Your task to perform on an android device: Add "dell xps" to the cart on bestbuy.com Image 0: 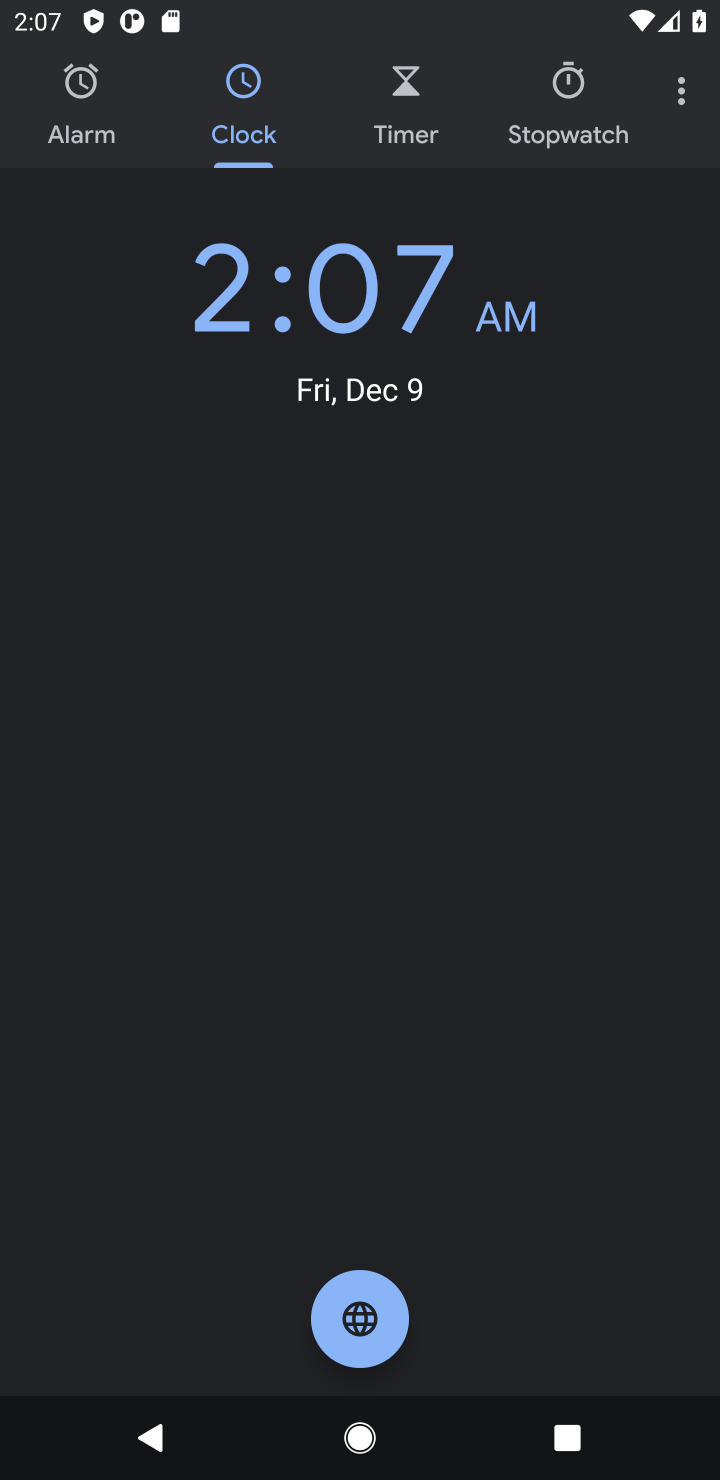
Step 0: press home button
Your task to perform on an android device: Add "dell xps" to the cart on bestbuy.com Image 1: 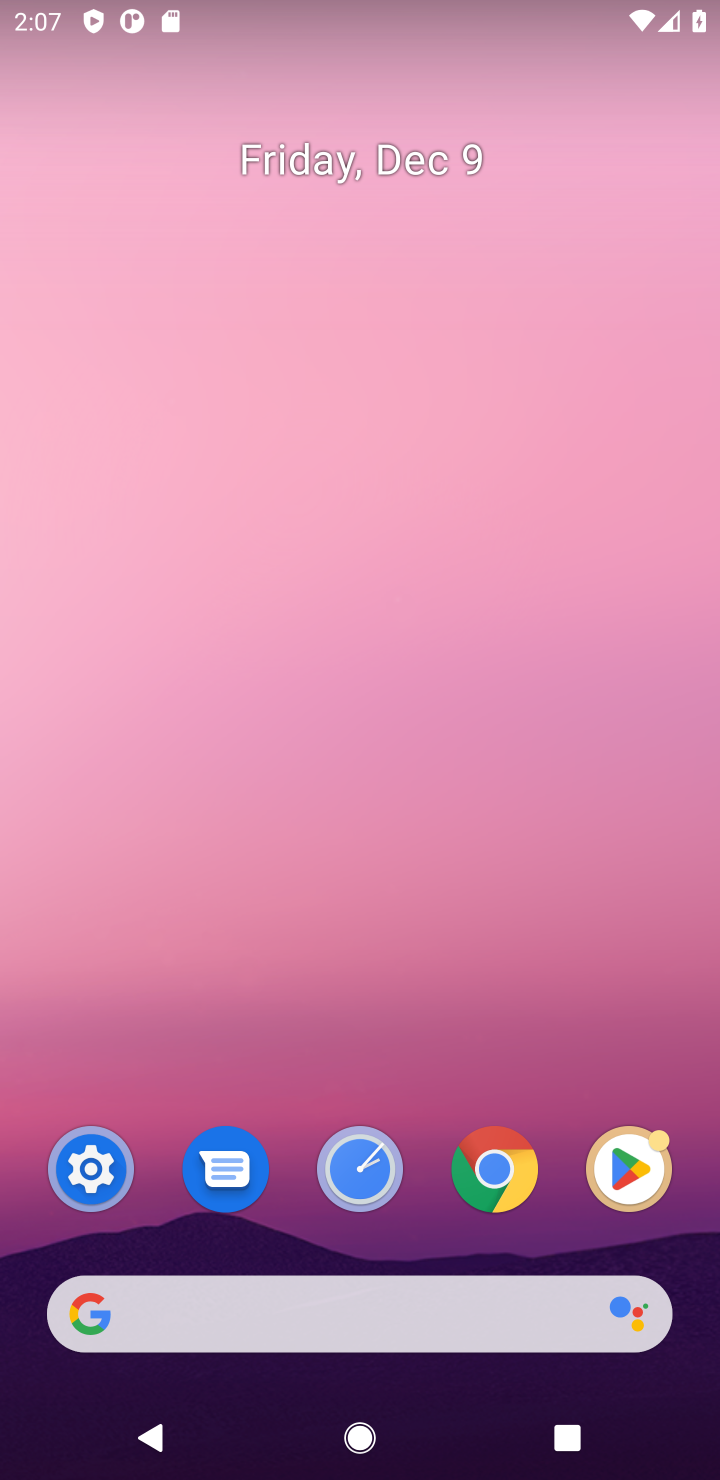
Step 1: click (506, 1158)
Your task to perform on an android device: Add "dell xps" to the cart on bestbuy.com Image 2: 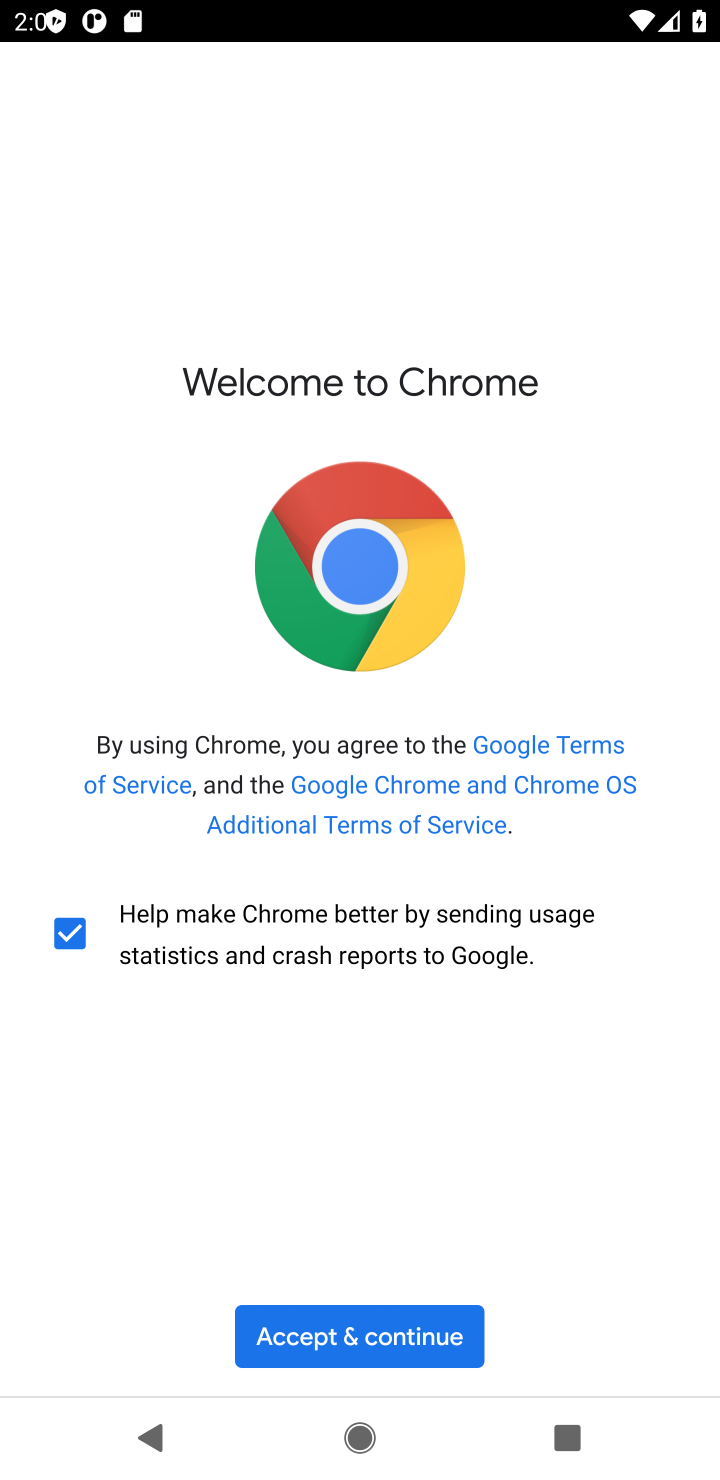
Step 2: click (411, 1346)
Your task to perform on an android device: Add "dell xps" to the cart on bestbuy.com Image 3: 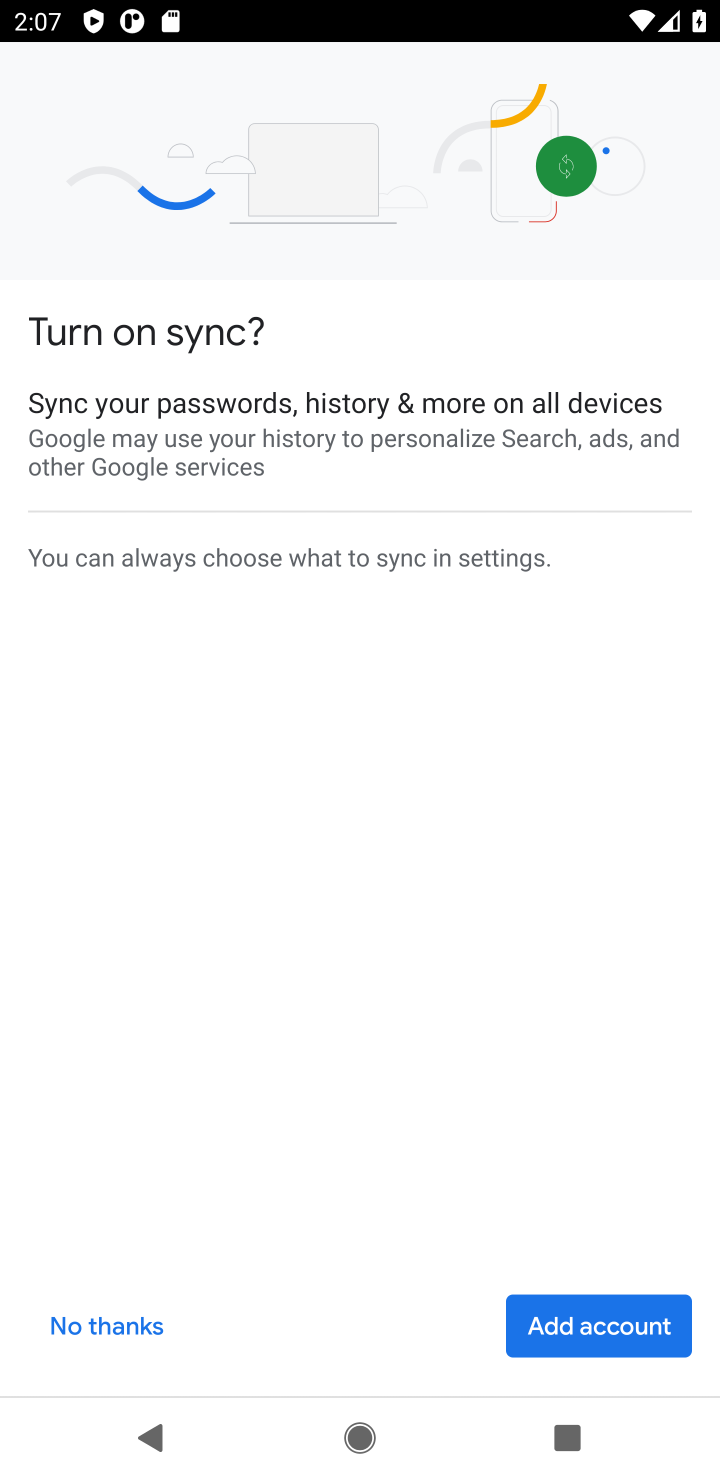
Step 3: click (118, 1316)
Your task to perform on an android device: Add "dell xps" to the cart on bestbuy.com Image 4: 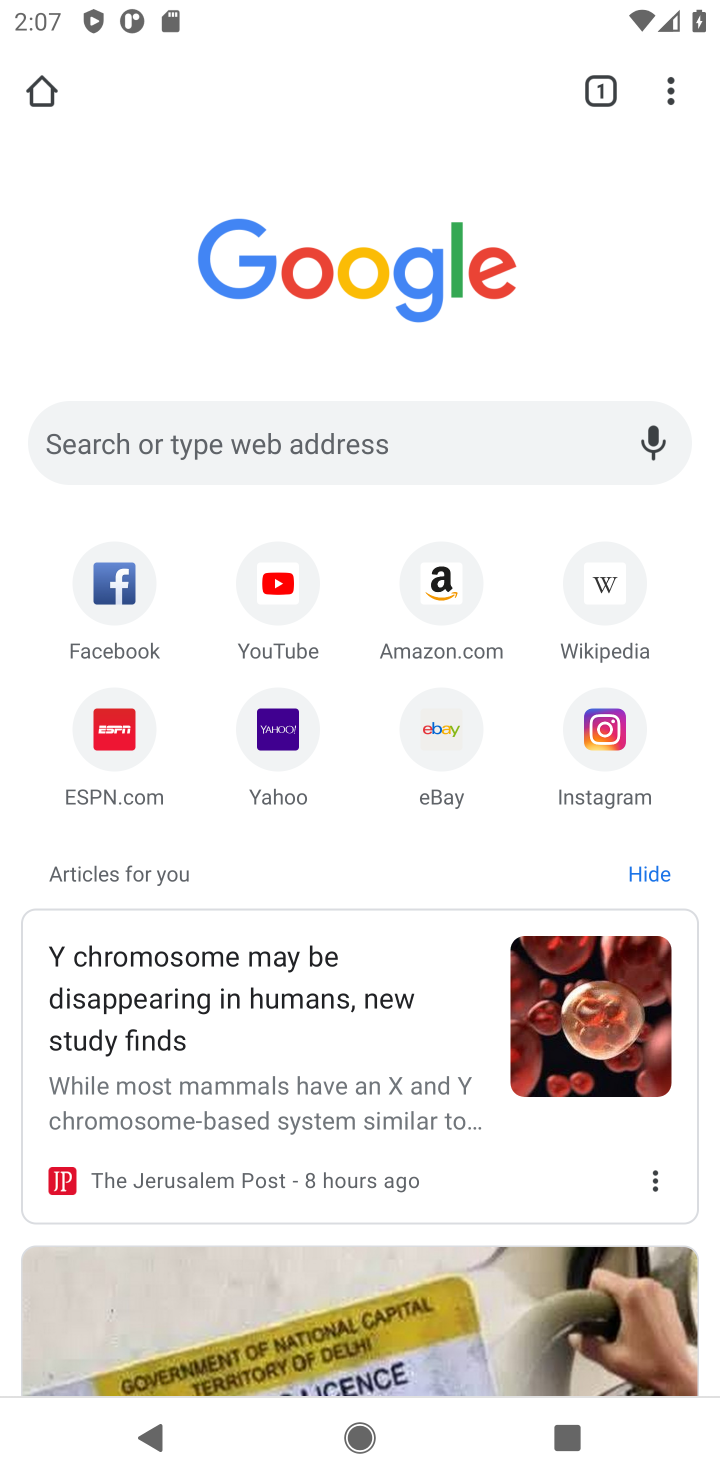
Step 4: click (519, 418)
Your task to perform on an android device: Add "dell xps" to the cart on bestbuy.com Image 5: 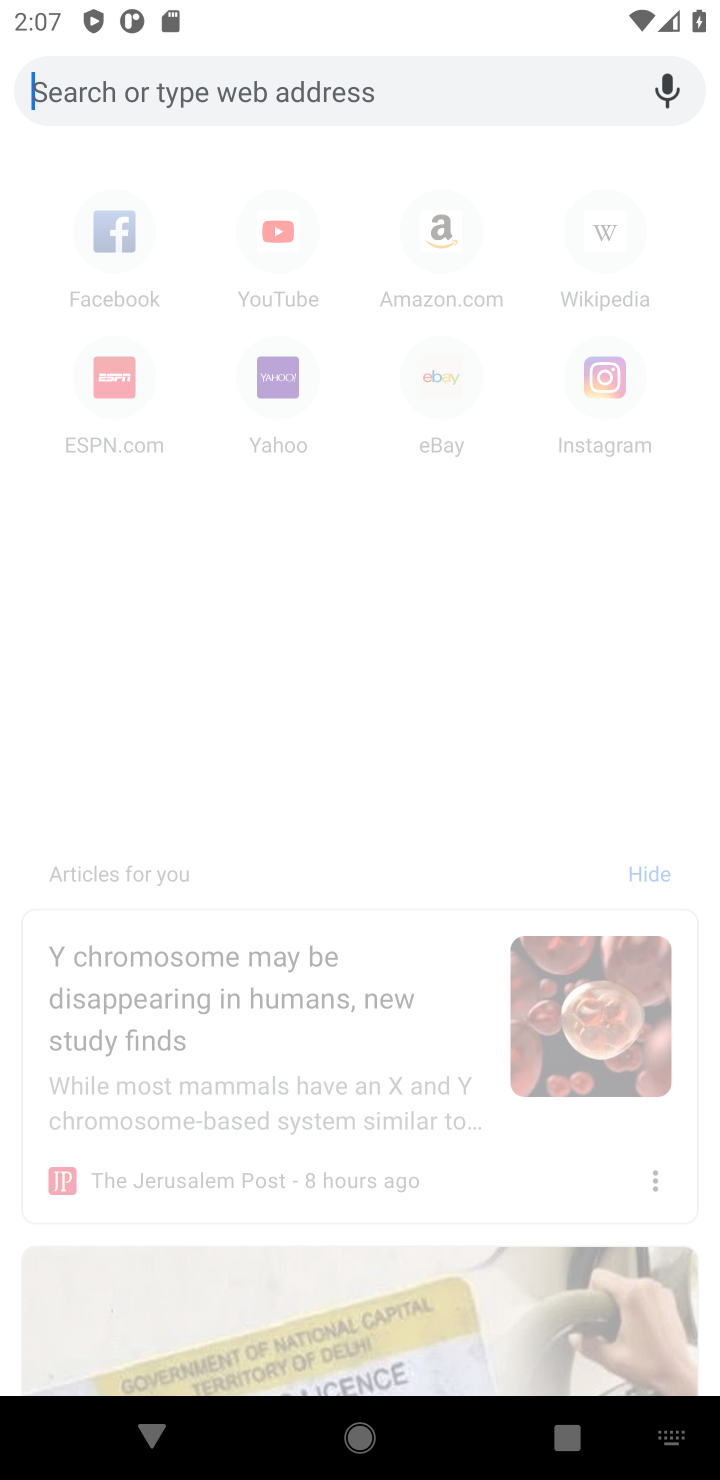
Step 5: press enter
Your task to perform on an android device: Add "dell xps" to the cart on bestbuy.com Image 6: 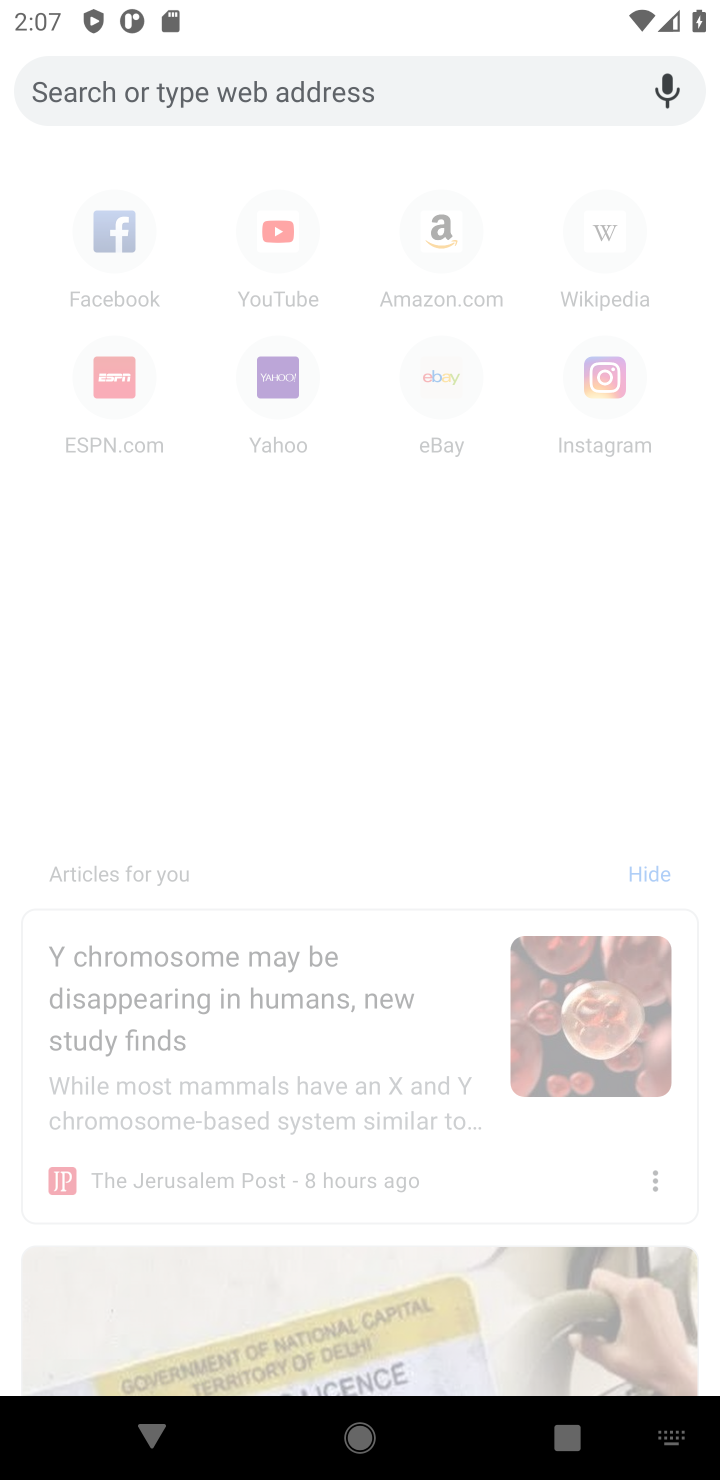
Step 6: type "bestbuy.com"
Your task to perform on an android device: Add "dell xps" to the cart on bestbuy.com Image 7: 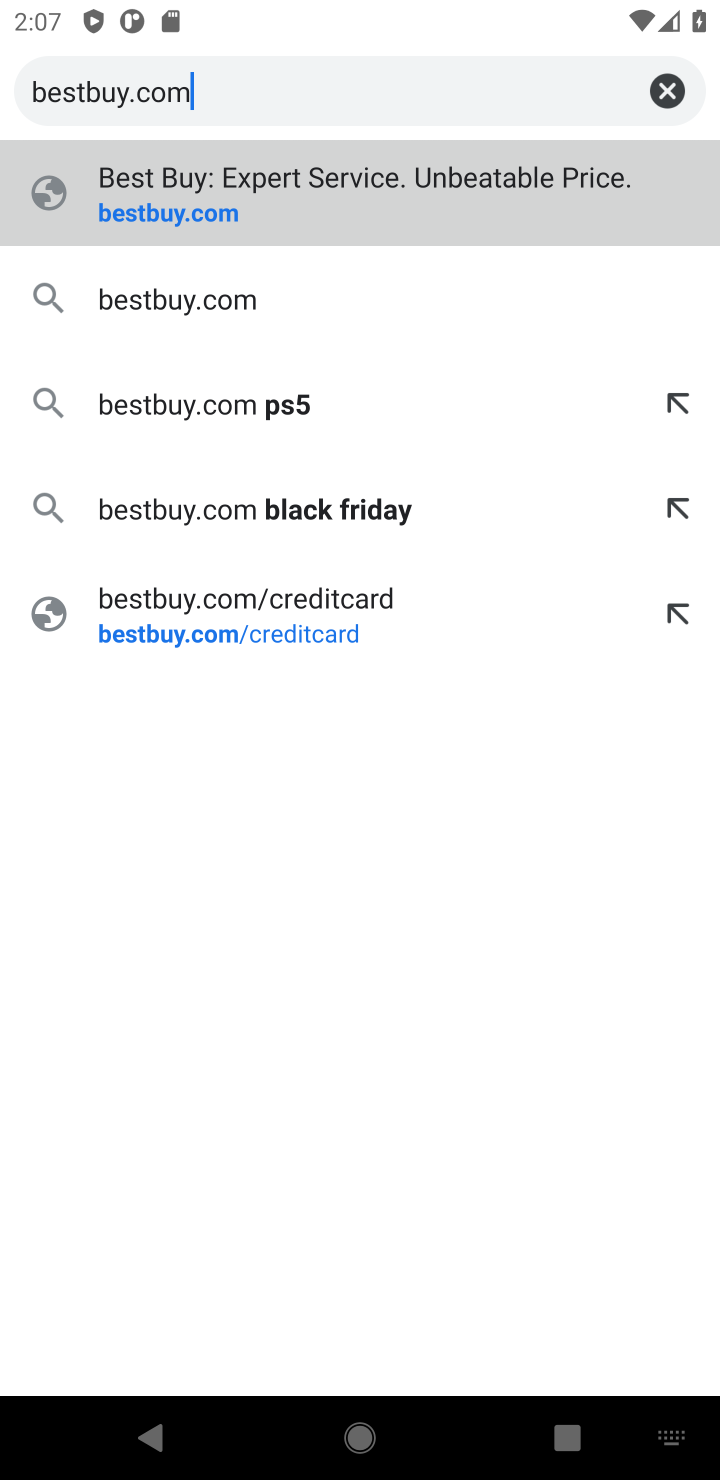
Step 7: click (212, 302)
Your task to perform on an android device: Add "dell xps" to the cart on bestbuy.com Image 8: 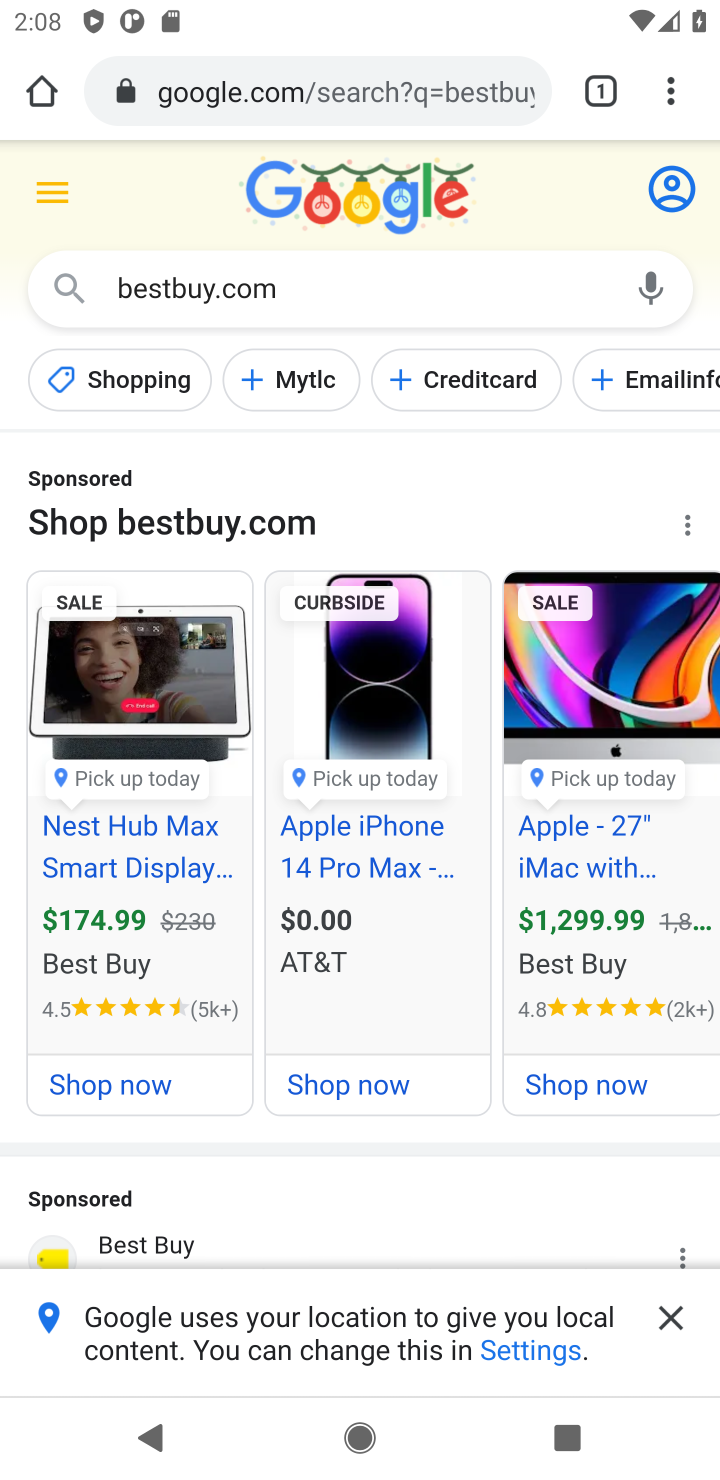
Step 8: drag from (361, 1131) to (399, 617)
Your task to perform on an android device: Add "dell xps" to the cart on bestbuy.com Image 9: 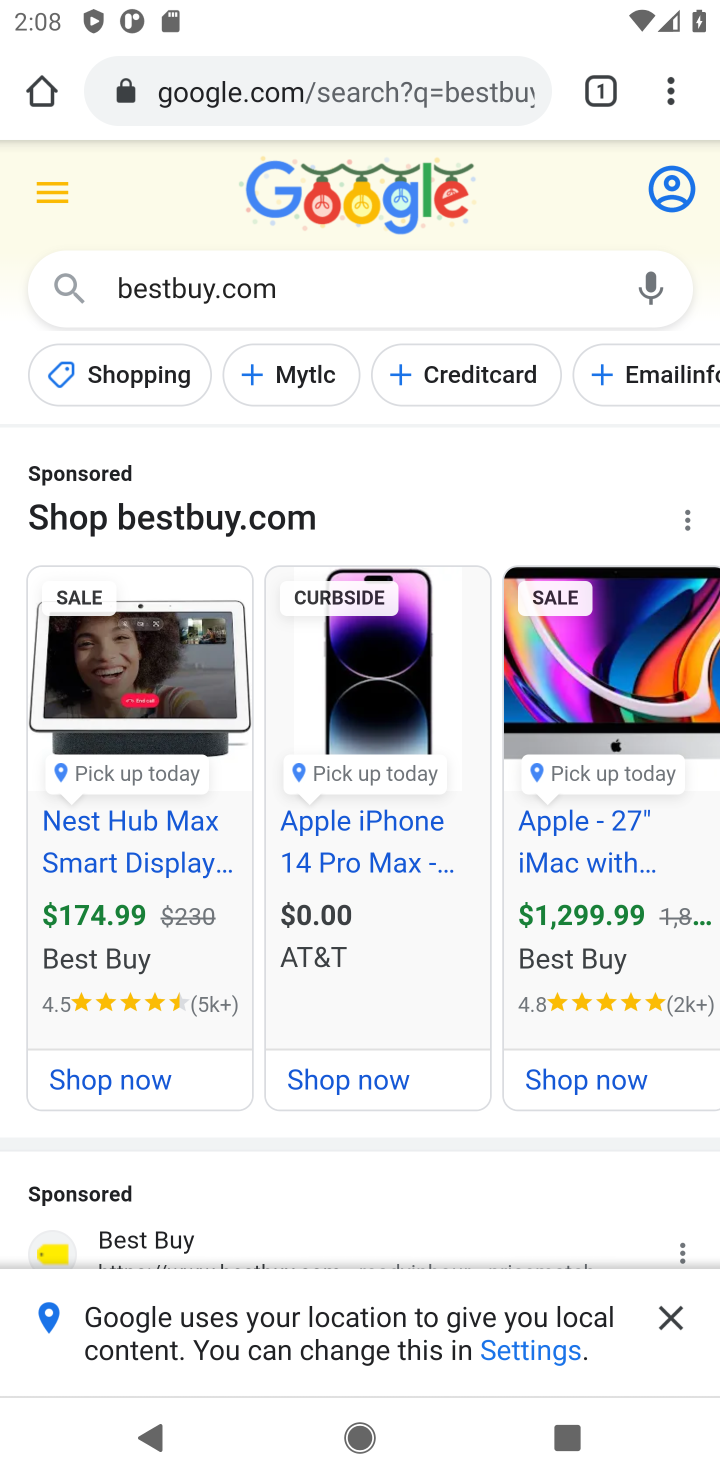
Step 9: click (679, 1319)
Your task to perform on an android device: Add "dell xps" to the cart on bestbuy.com Image 10: 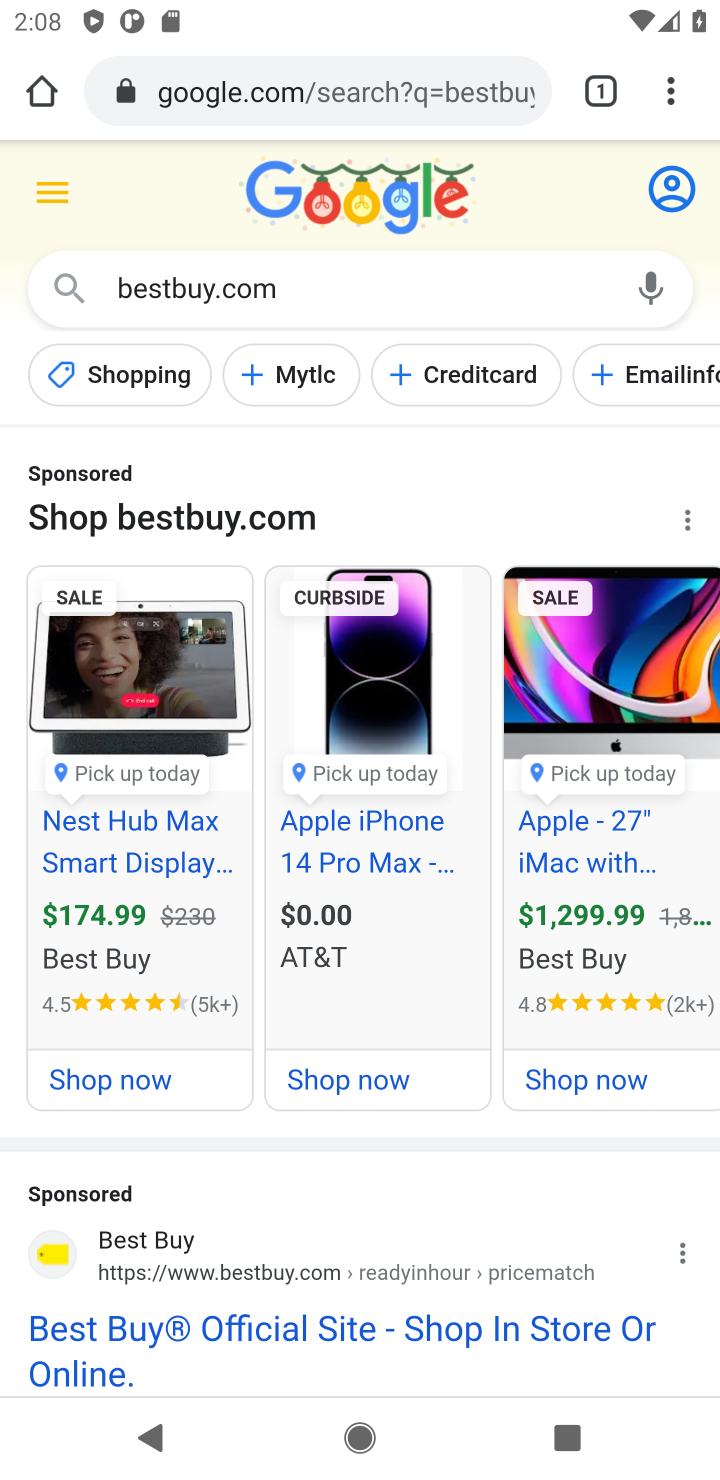
Step 10: click (196, 1267)
Your task to perform on an android device: Add "dell xps" to the cart on bestbuy.com Image 11: 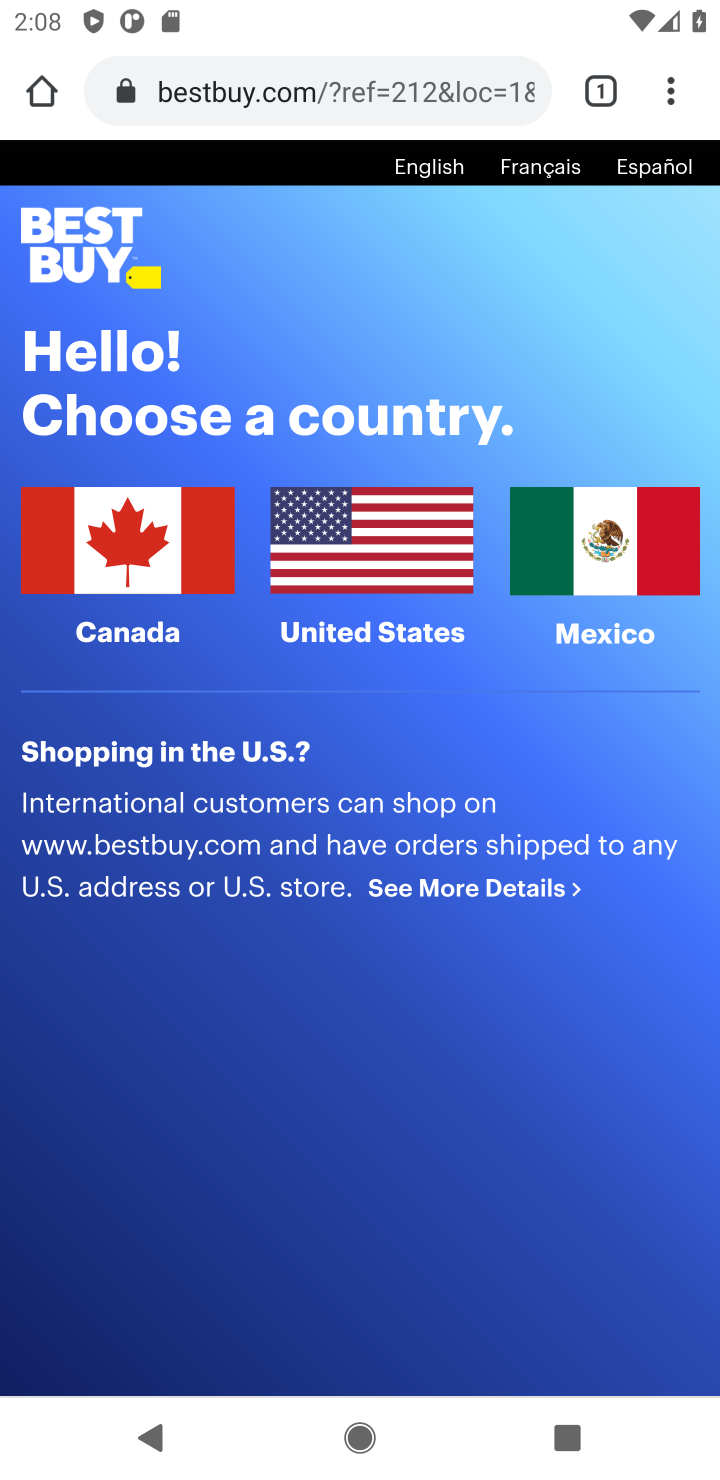
Step 11: click (433, 539)
Your task to perform on an android device: Add "dell xps" to the cart on bestbuy.com Image 12: 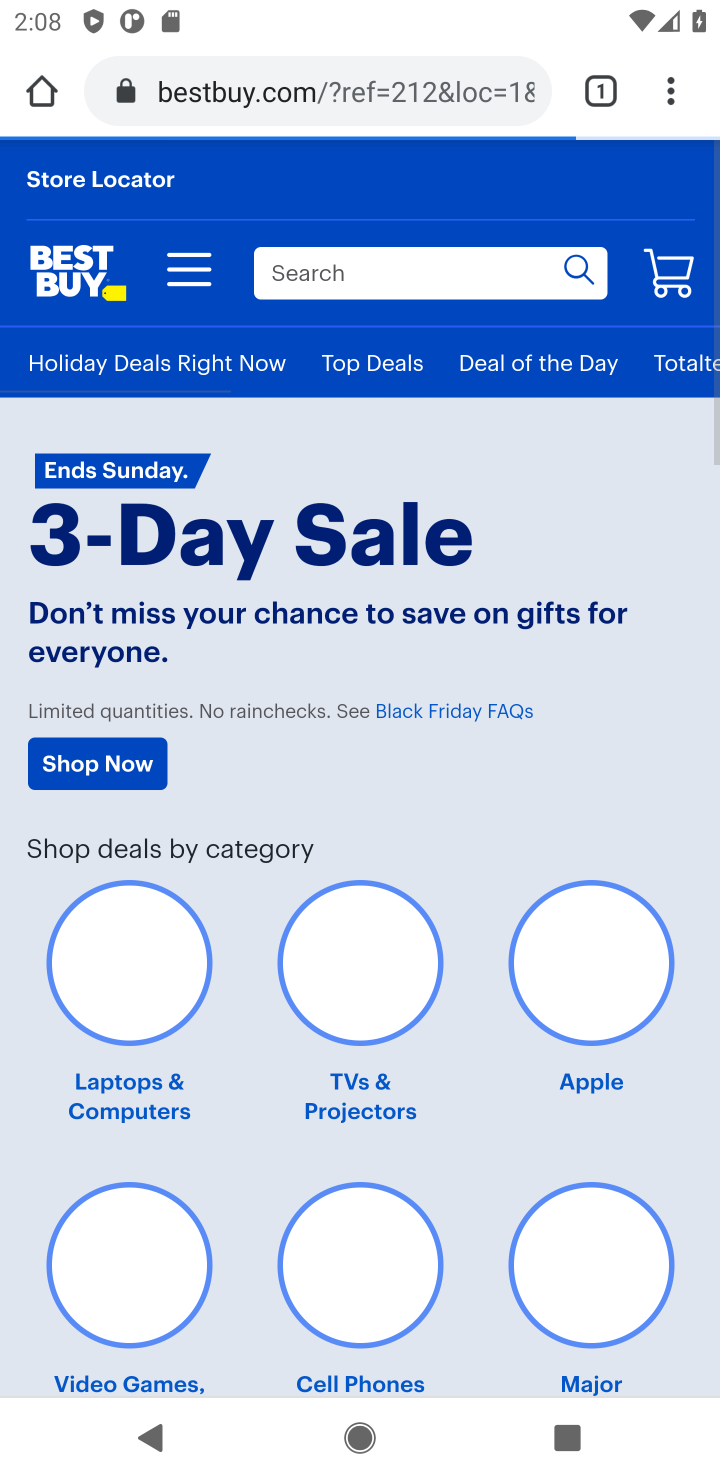
Step 12: click (433, 539)
Your task to perform on an android device: Add "dell xps" to the cart on bestbuy.com Image 13: 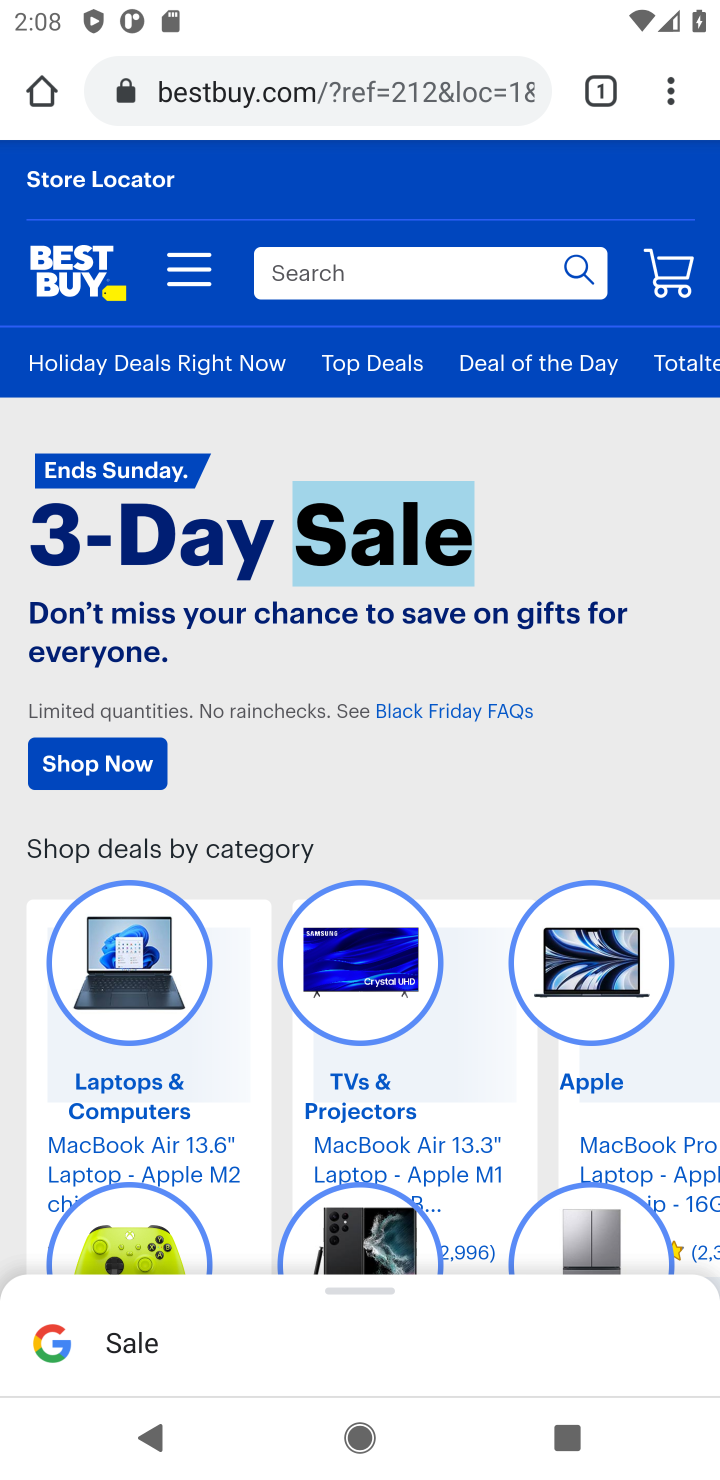
Step 13: click (511, 261)
Your task to perform on an android device: Add "dell xps" to the cart on bestbuy.com Image 14: 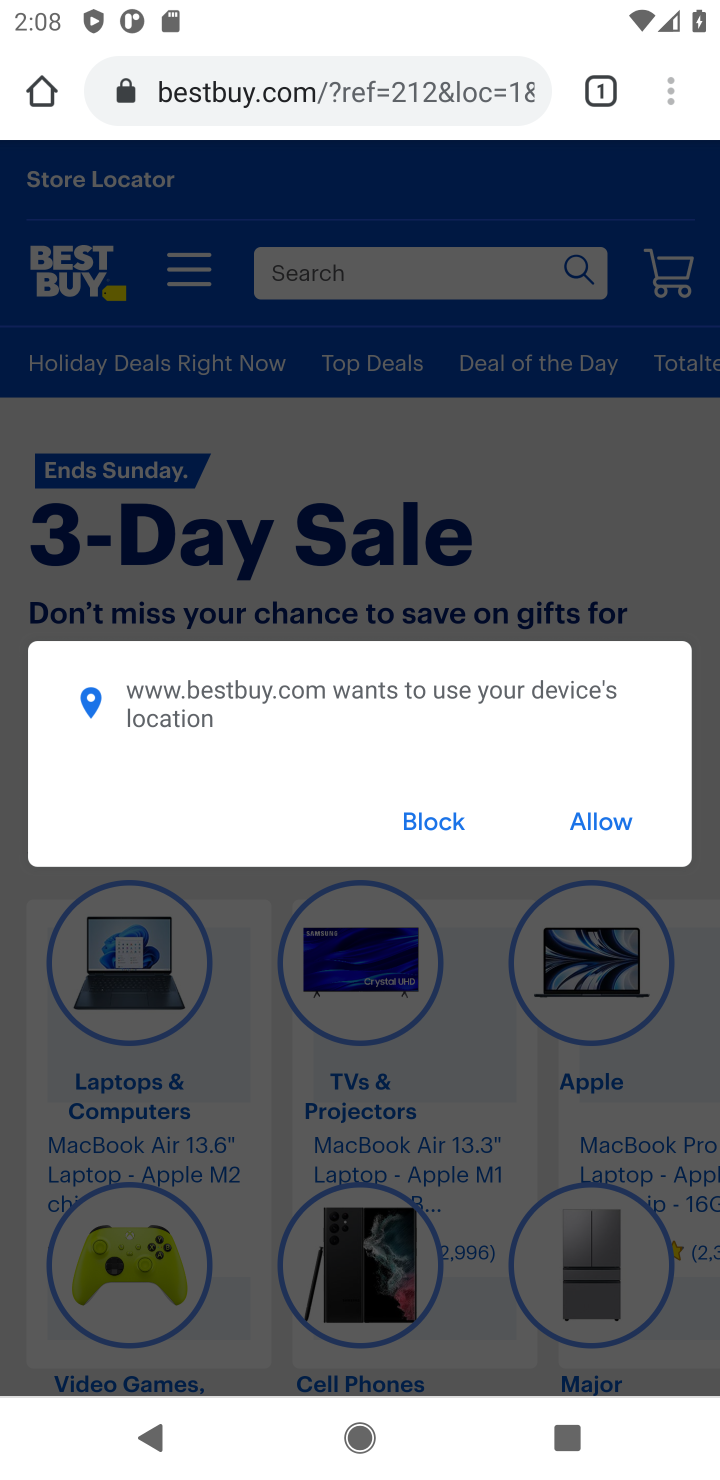
Step 14: click (434, 815)
Your task to perform on an android device: Add "dell xps" to the cart on bestbuy.com Image 15: 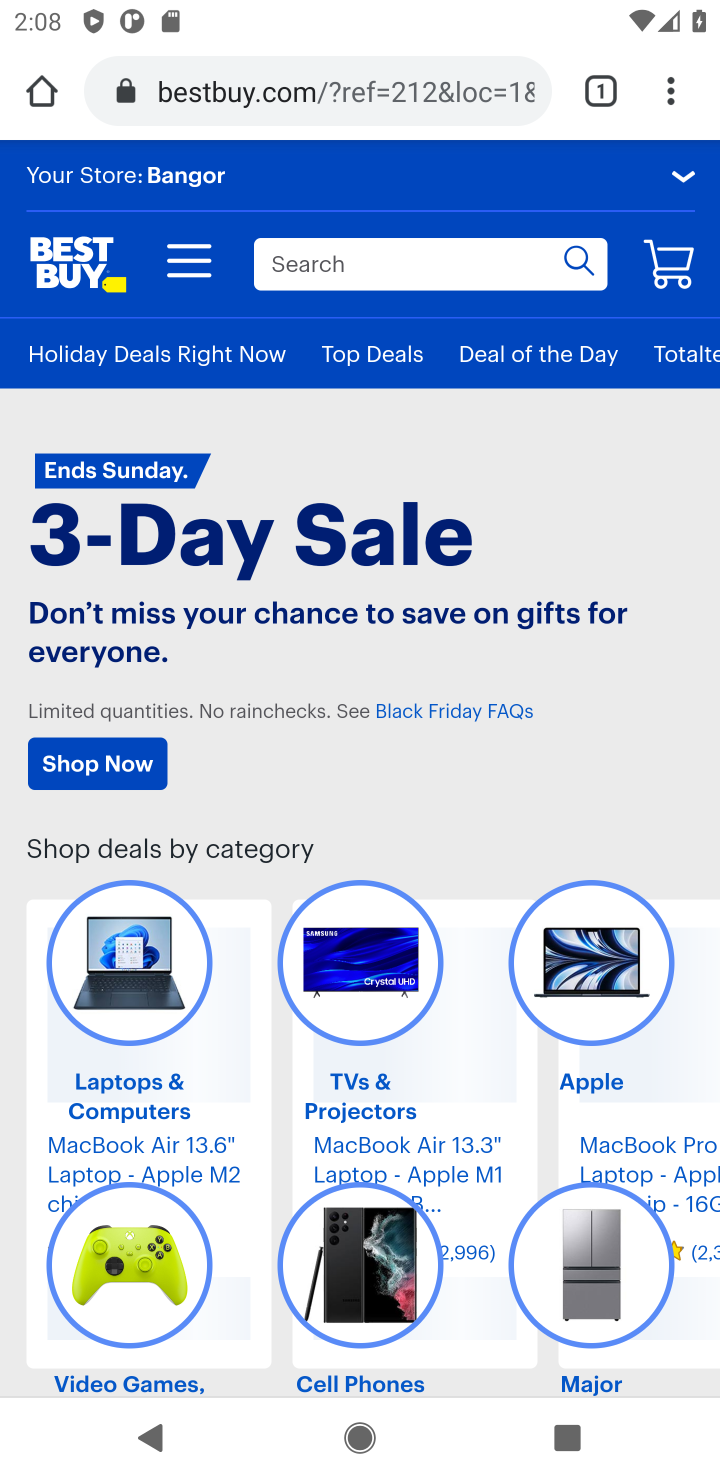
Step 15: click (526, 258)
Your task to perform on an android device: Add "dell xps" to the cart on bestbuy.com Image 16: 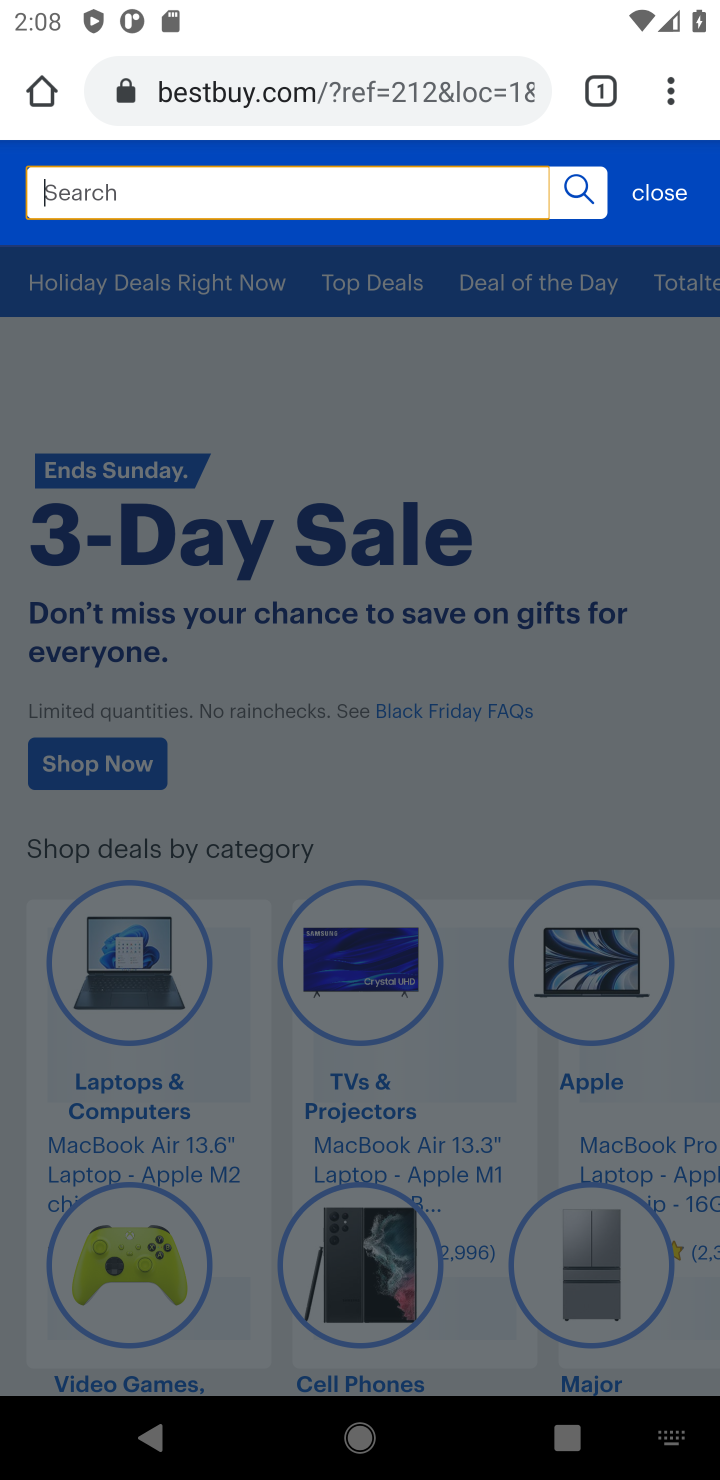
Step 16: type "dell xps"
Your task to perform on an android device: Add "dell xps" to the cart on bestbuy.com Image 17: 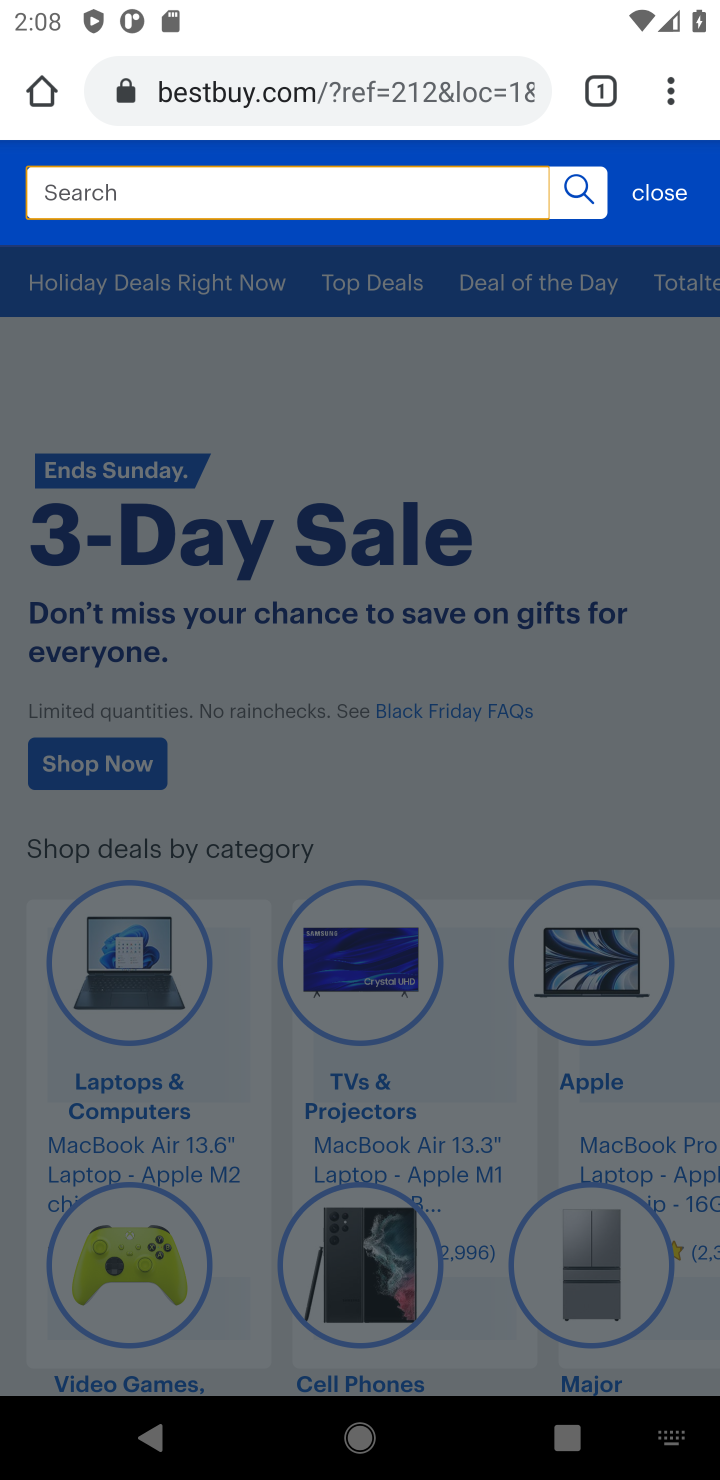
Step 17: click (438, 190)
Your task to perform on an android device: Add "dell xps" to the cart on bestbuy.com Image 18: 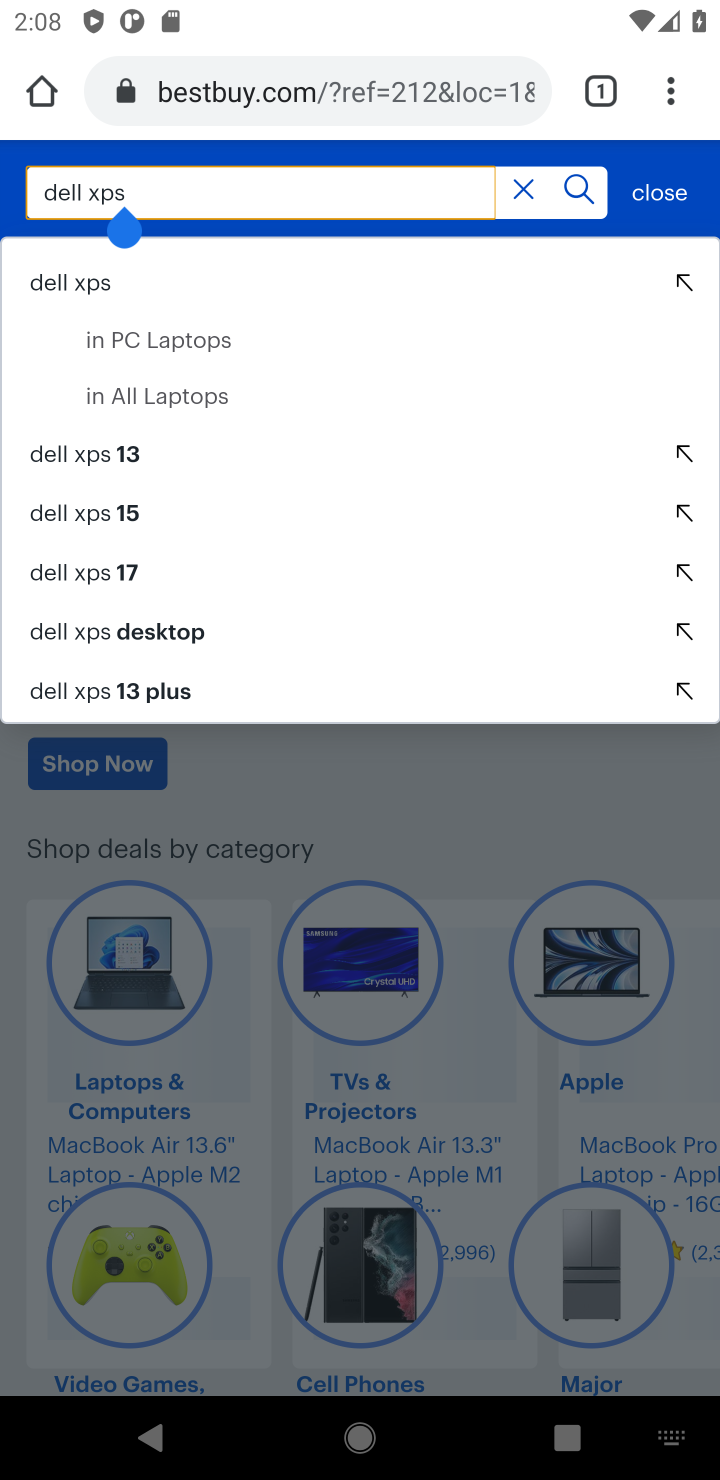
Step 18: click (77, 277)
Your task to perform on an android device: Add "dell xps" to the cart on bestbuy.com Image 19: 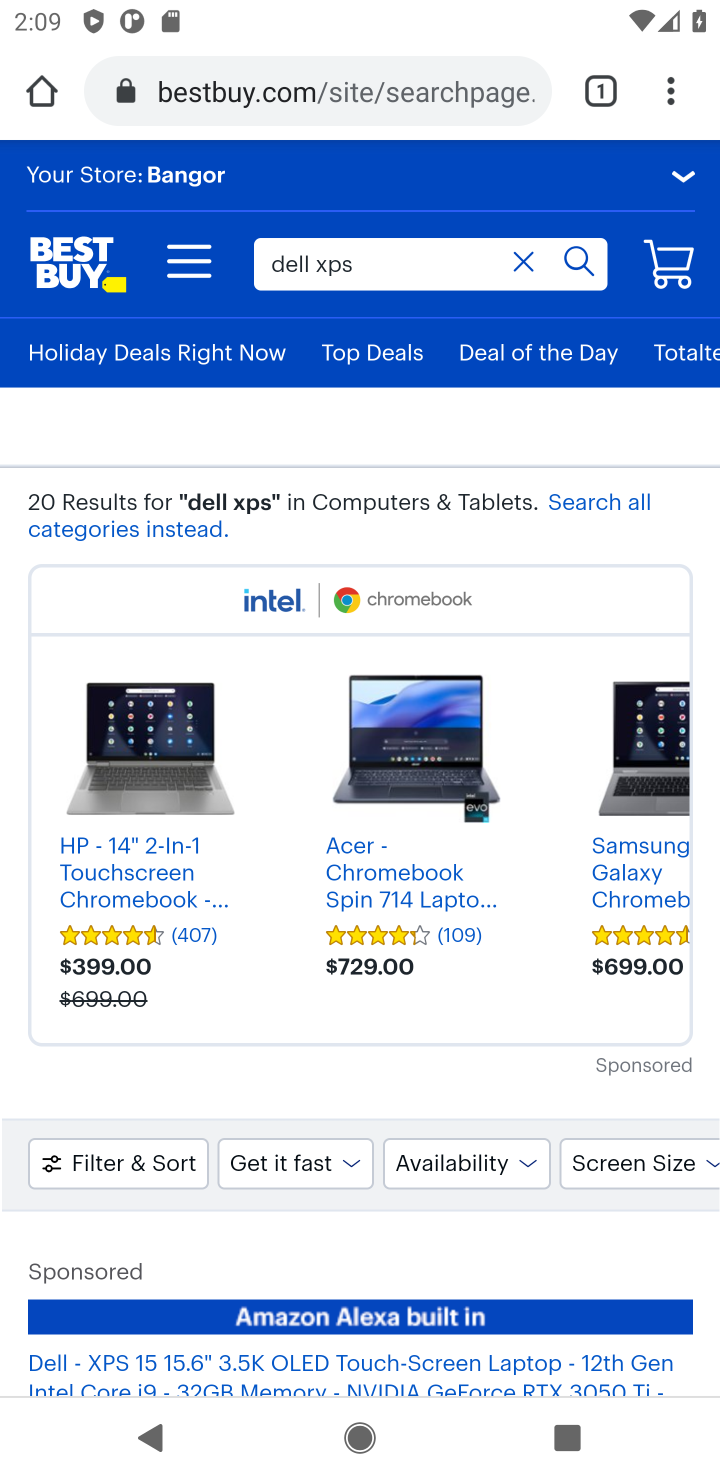
Step 19: drag from (510, 1078) to (532, 216)
Your task to perform on an android device: Add "dell xps" to the cart on bestbuy.com Image 20: 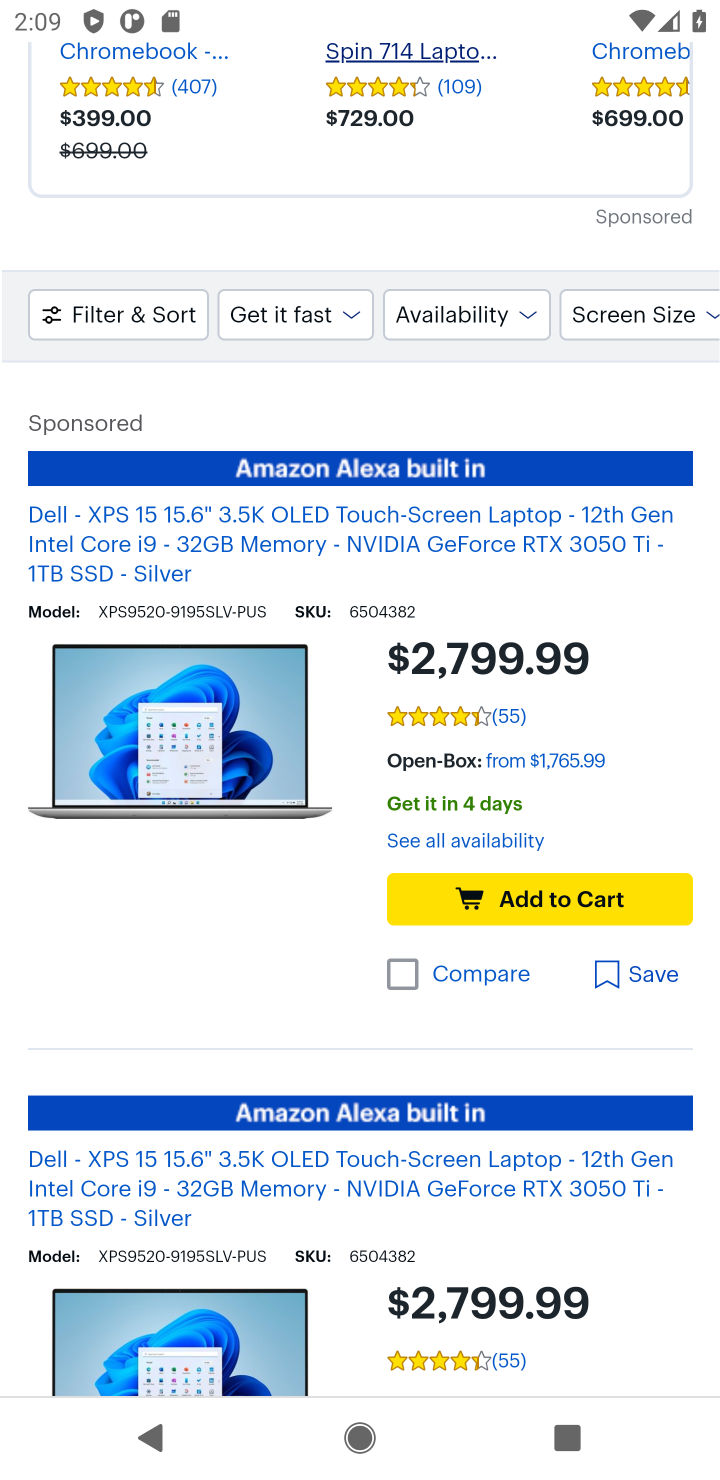
Step 20: drag from (486, 1212) to (535, 638)
Your task to perform on an android device: Add "dell xps" to the cart on bestbuy.com Image 21: 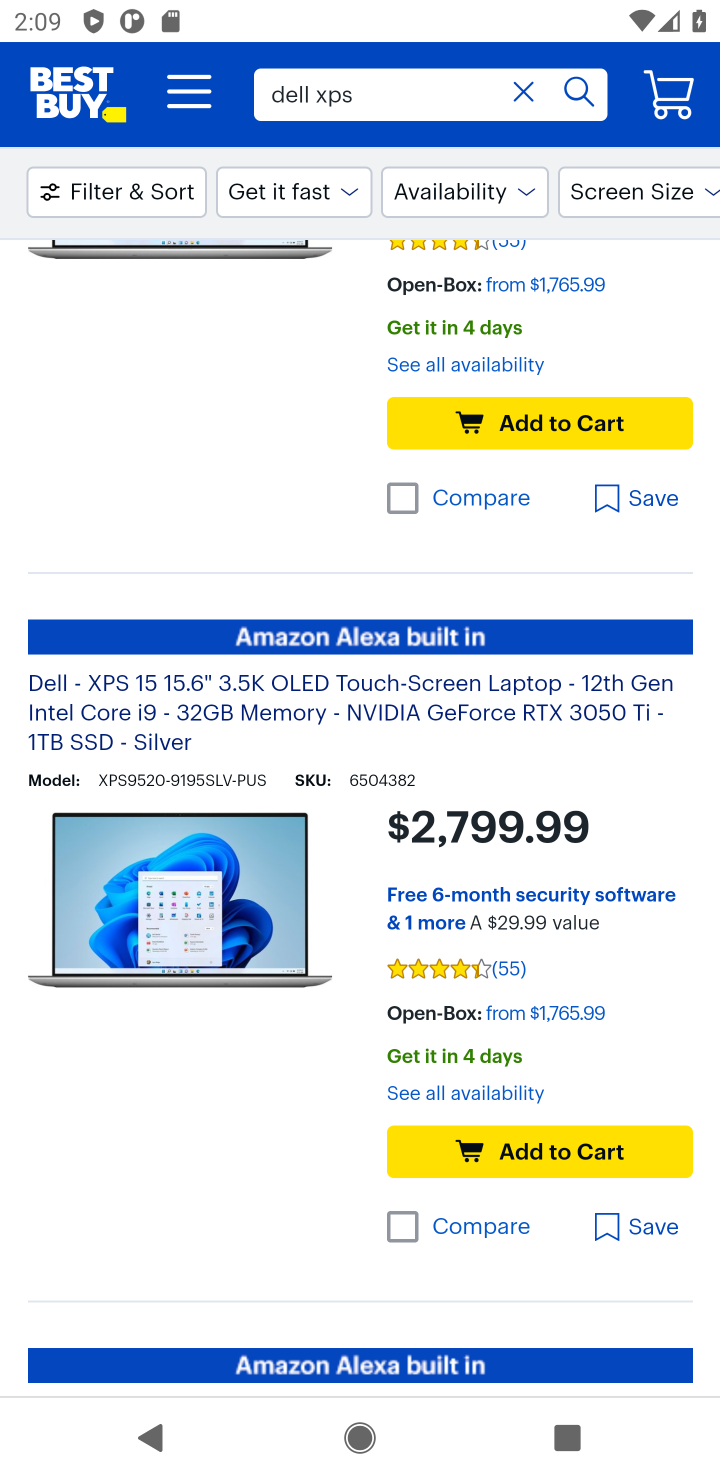
Step 21: click (195, 165)
Your task to perform on an android device: Add "dell xps" to the cart on bestbuy.com Image 22: 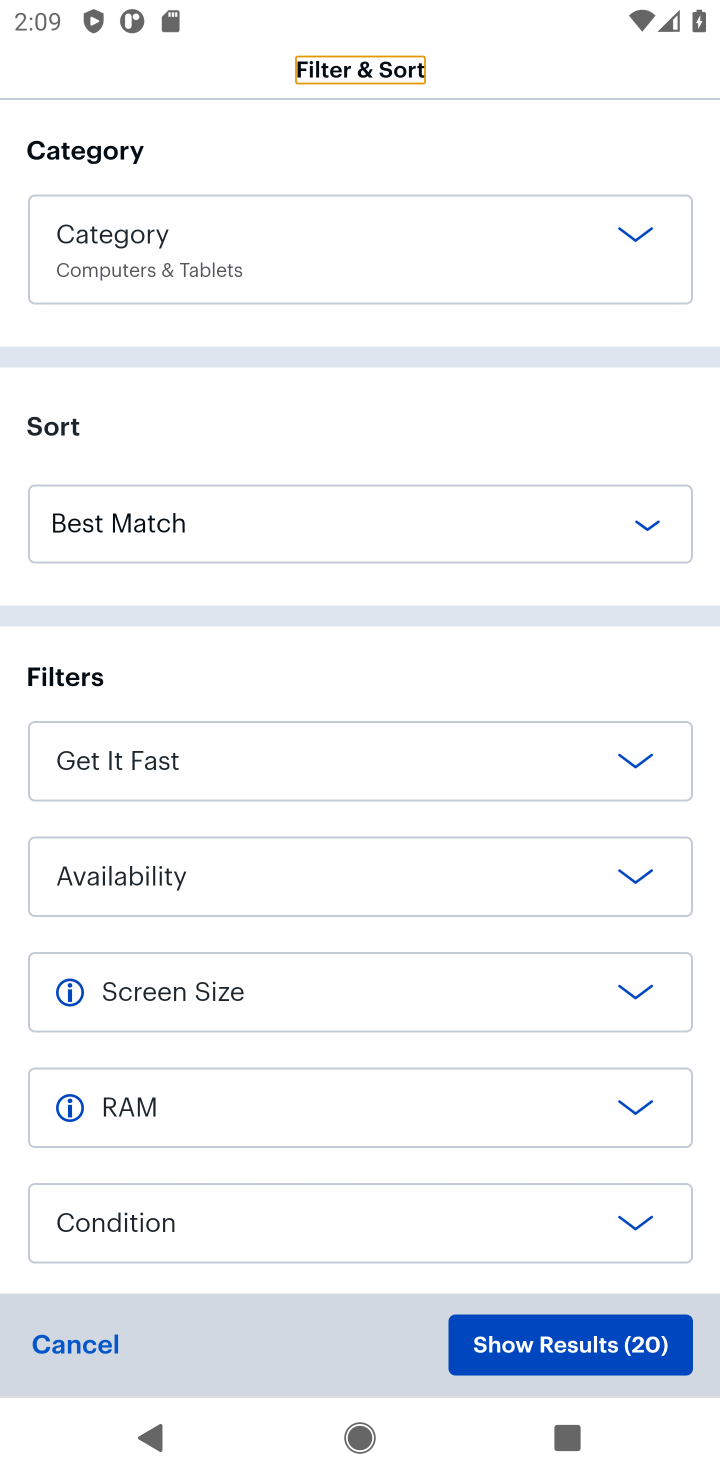
Step 22: press back button
Your task to perform on an android device: Add "dell xps" to the cart on bestbuy.com Image 23: 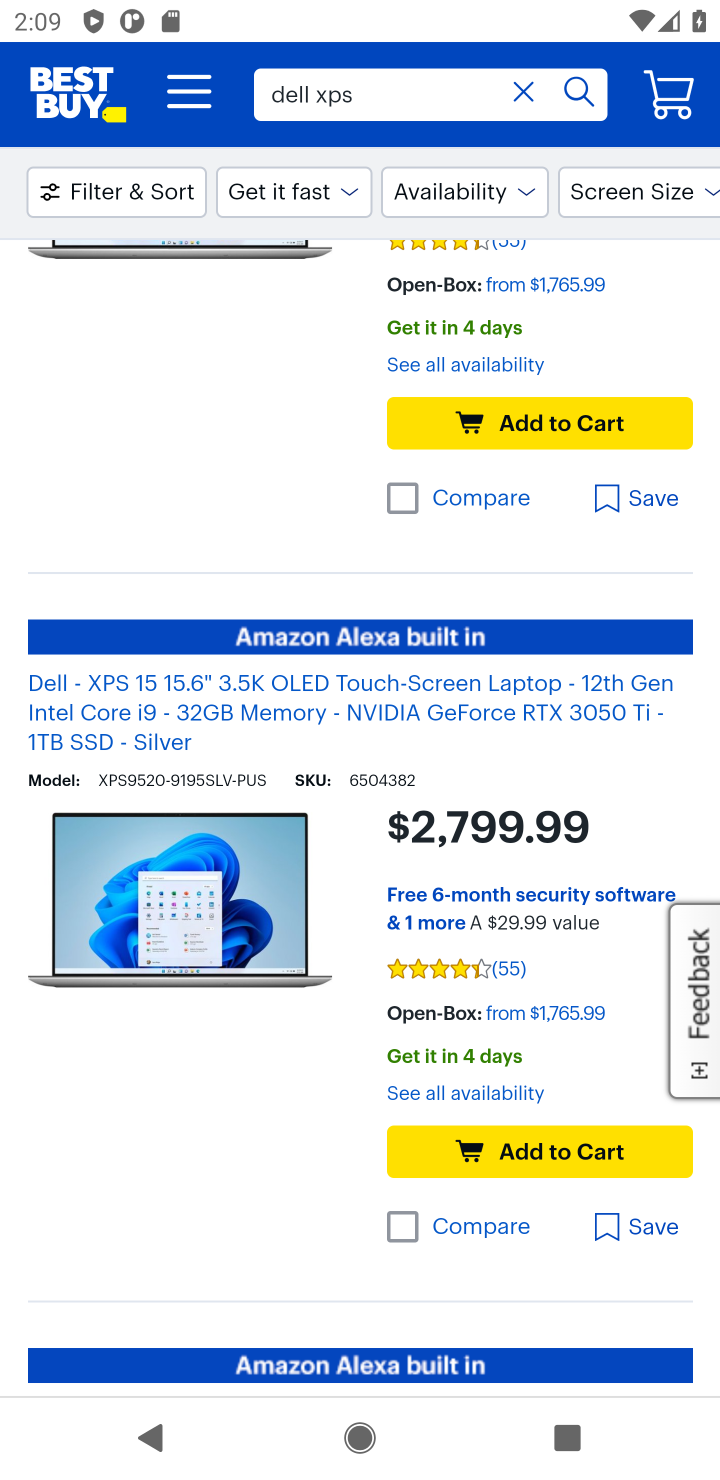
Step 23: drag from (263, 269) to (291, 622)
Your task to perform on an android device: Add "dell xps" to the cart on bestbuy.com Image 24: 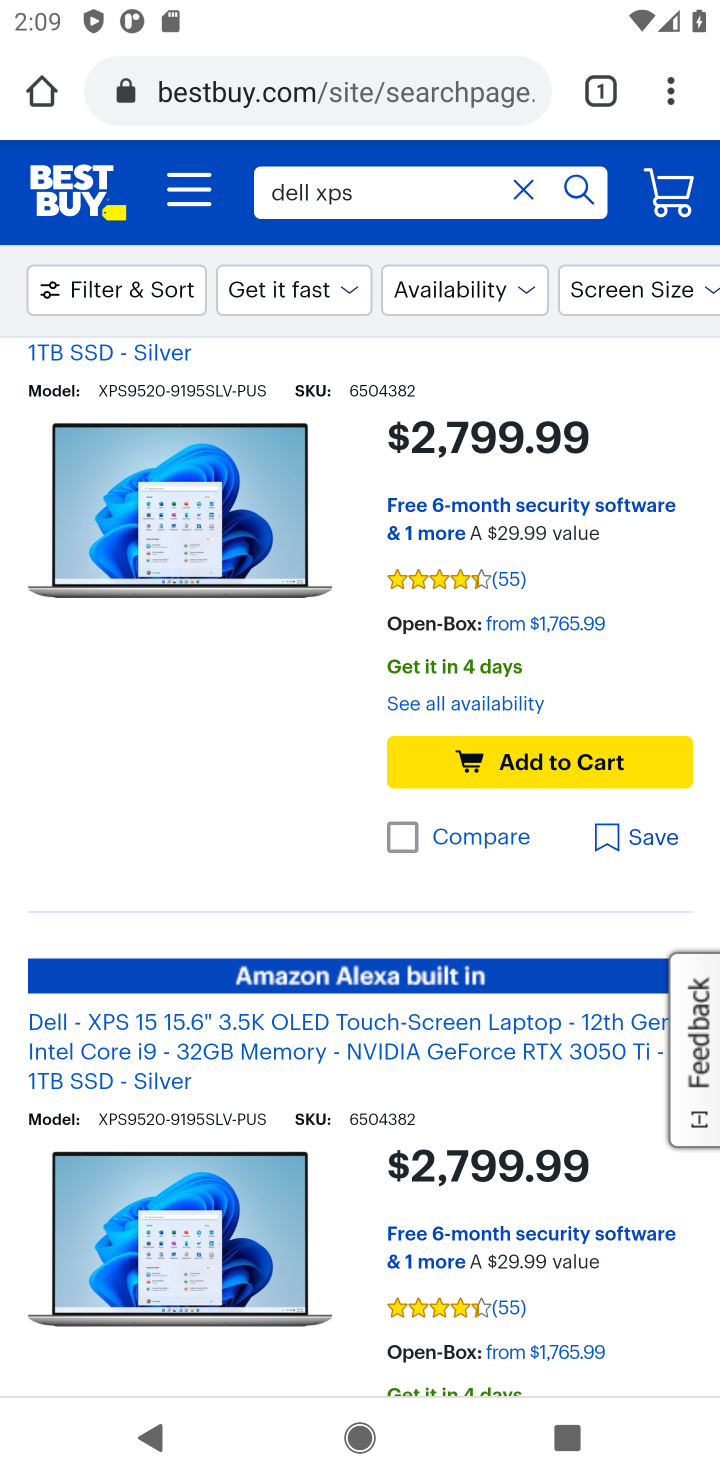
Step 24: click (210, 510)
Your task to perform on an android device: Add "dell xps" to the cart on bestbuy.com Image 25: 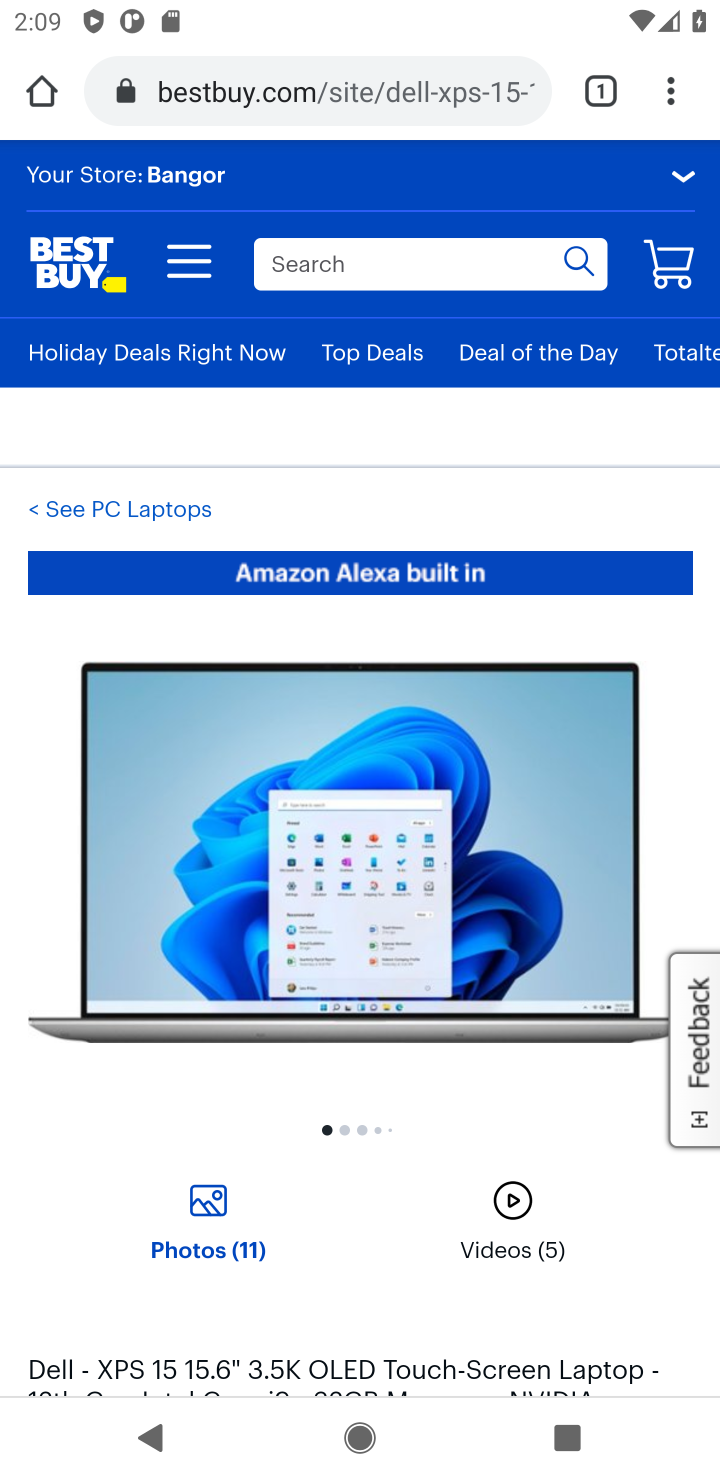
Step 25: drag from (576, 923) to (486, 147)
Your task to perform on an android device: Add "dell xps" to the cart on bestbuy.com Image 26: 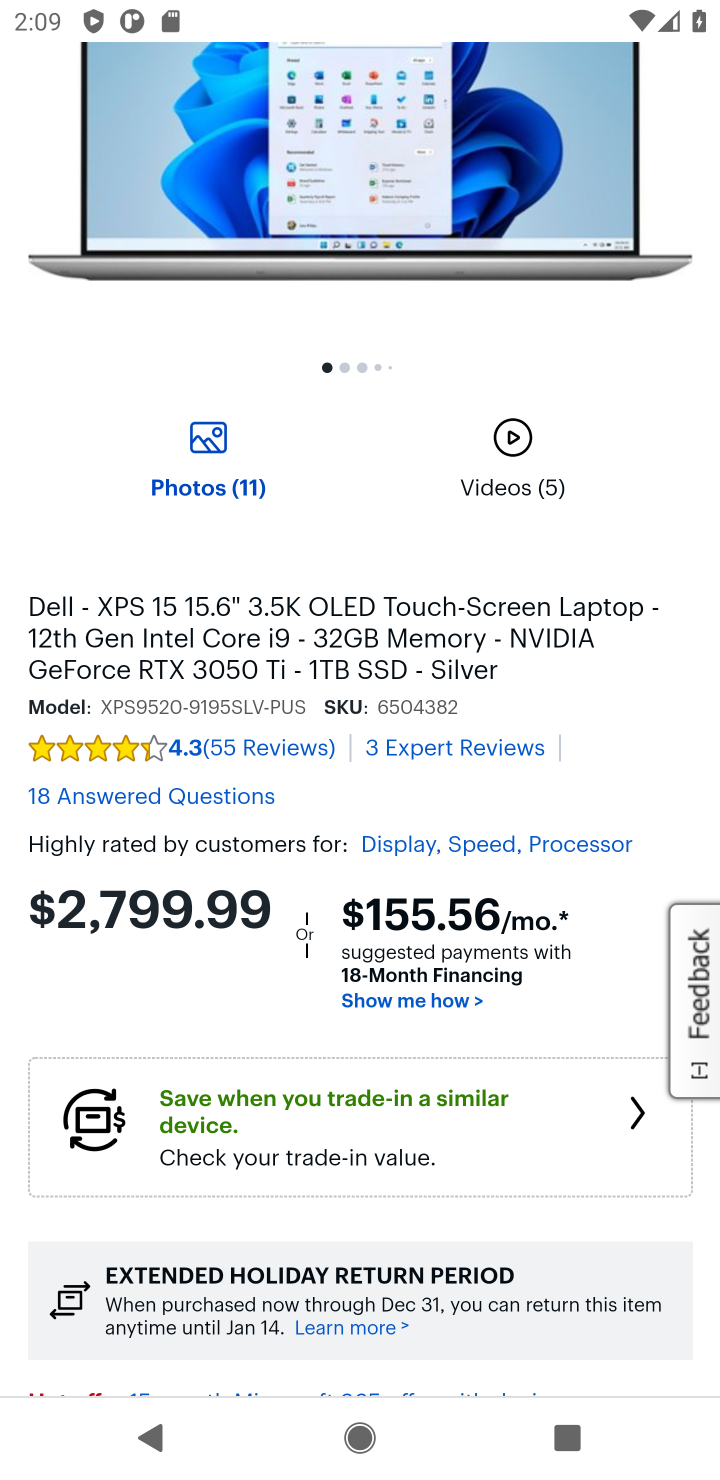
Step 26: drag from (613, 1072) to (594, 379)
Your task to perform on an android device: Add "dell xps" to the cart on bestbuy.com Image 27: 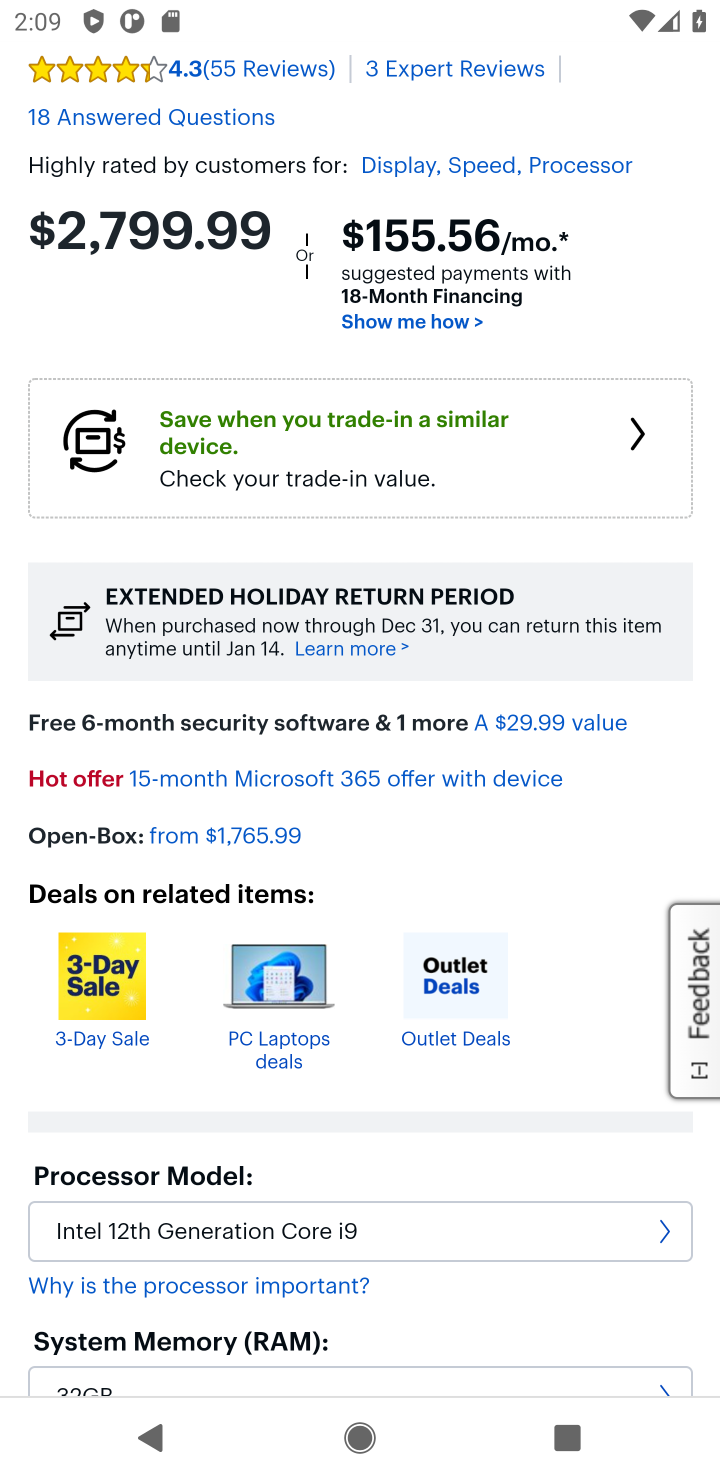
Step 27: drag from (507, 898) to (569, 352)
Your task to perform on an android device: Add "dell xps" to the cart on bestbuy.com Image 28: 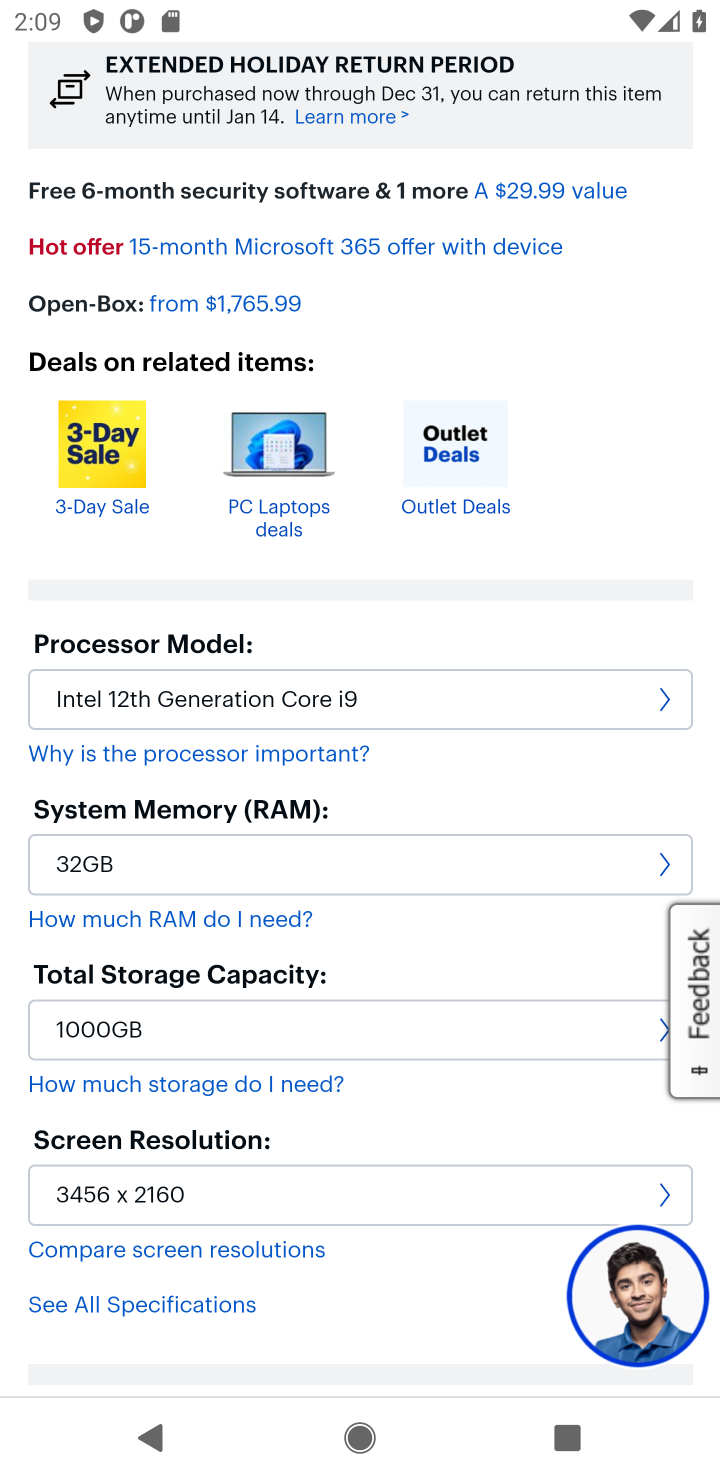
Step 28: drag from (533, 920) to (625, 165)
Your task to perform on an android device: Add "dell xps" to the cart on bestbuy.com Image 29: 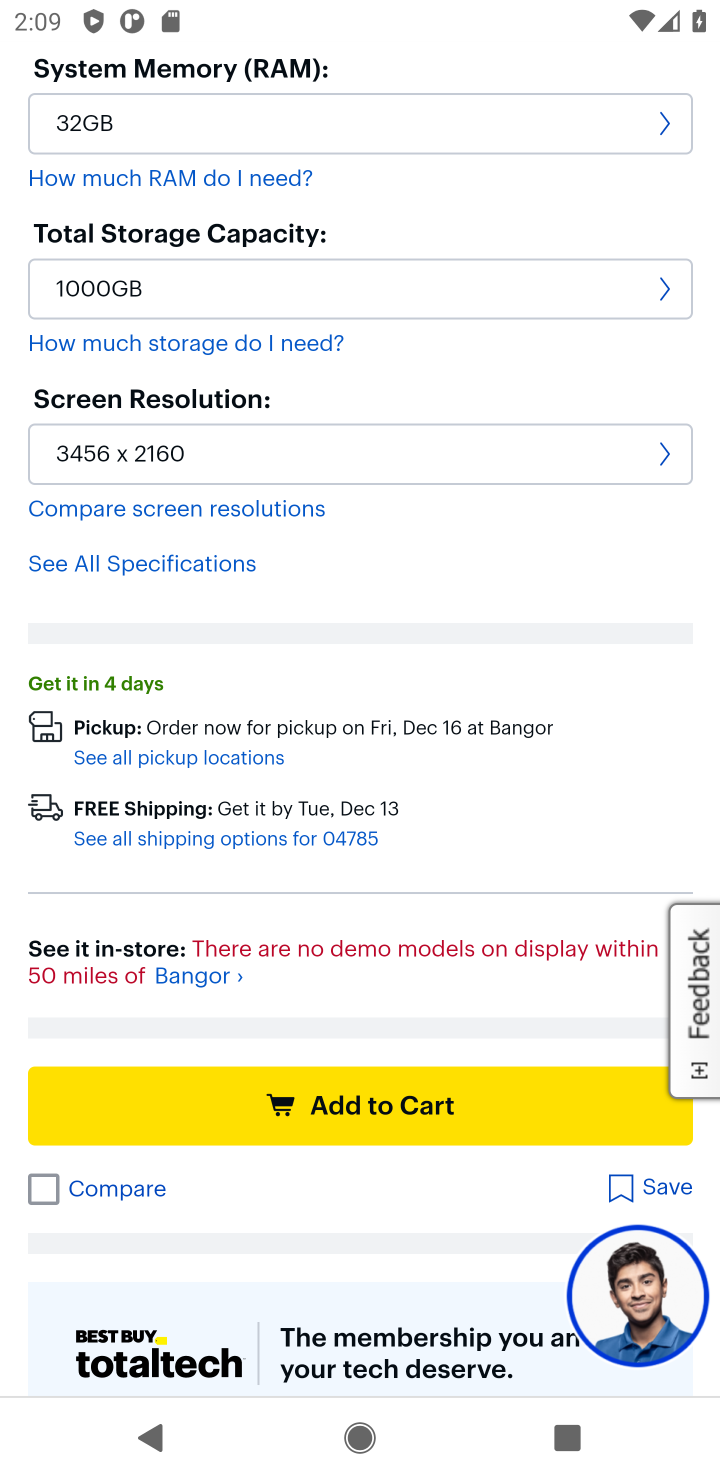
Step 29: click (403, 1122)
Your task to perform on an android device: Add "dell xps" to the cart on bestbuy.com Image 30: 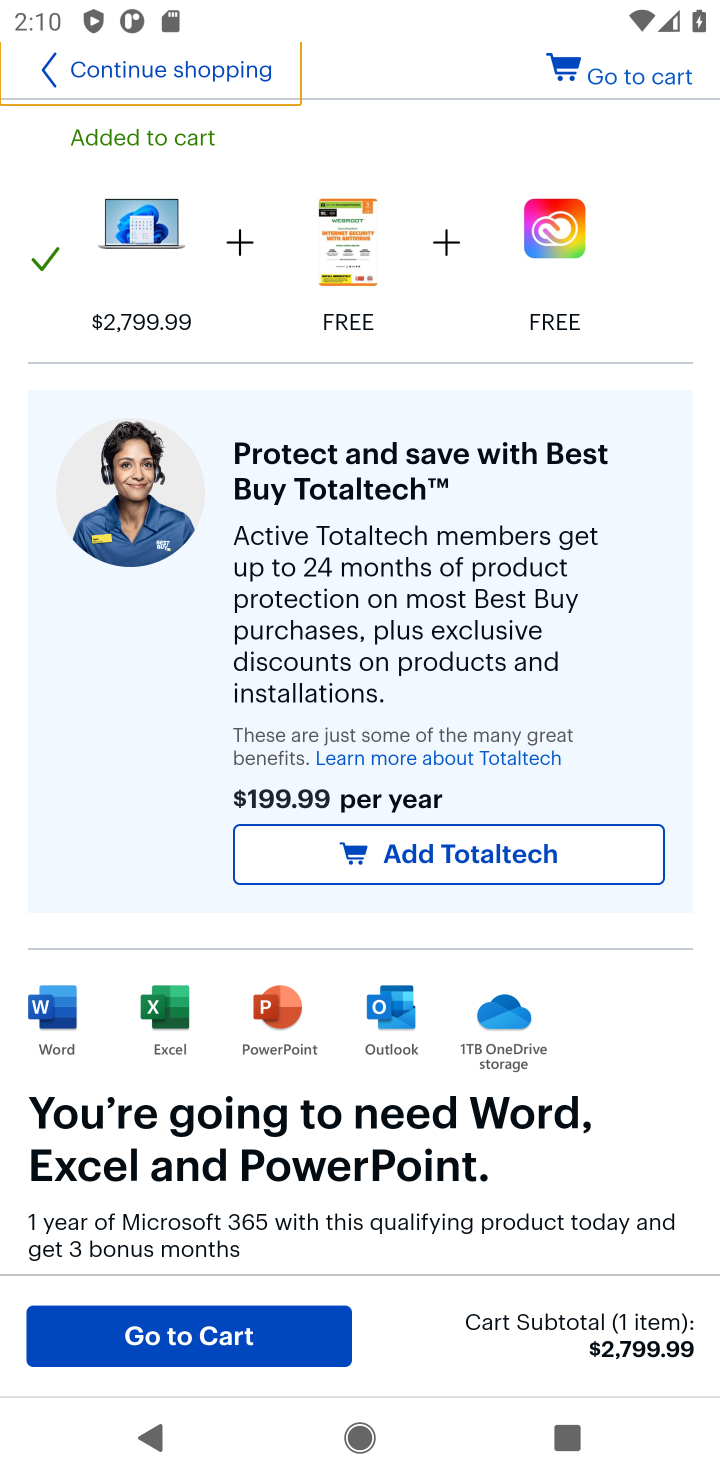
Step 30: task complete